Your task to perform on an android device: find which apps use the phone's location Image 0: 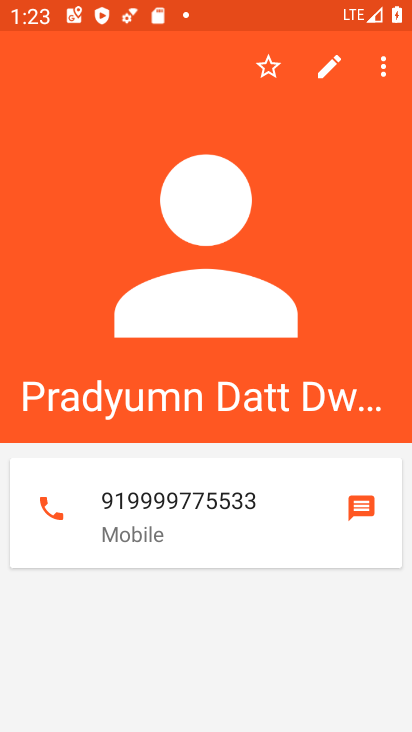
Step 0: press home button
Your task to perform on an android device: find which apps use the phone's location Image 1: 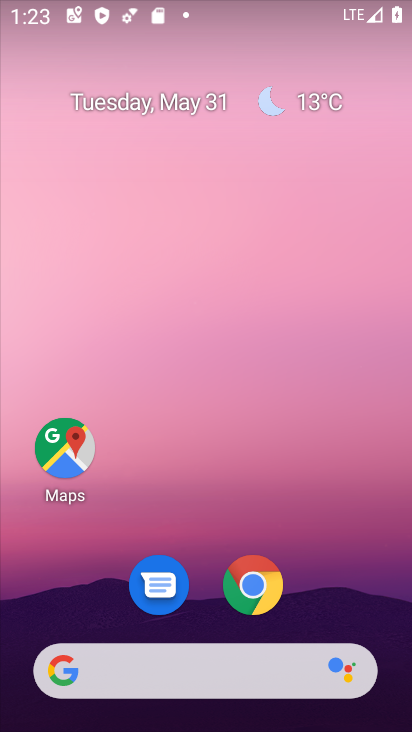
Step 1: drag from (219, 495) to (264, 16)
Your task to perform on an android device: find which apps use the phone's location Image 2: 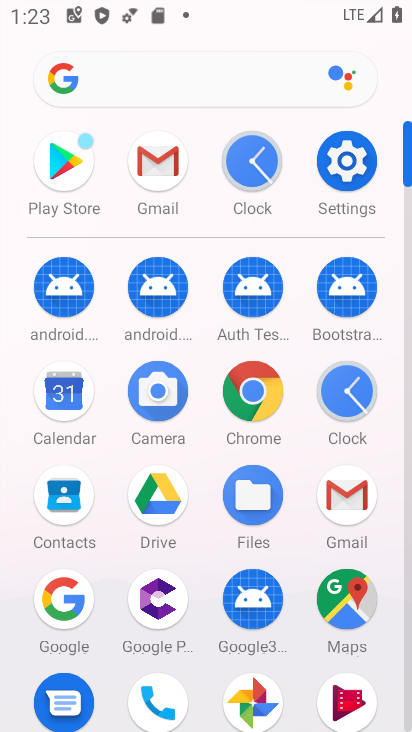
Step 2: click (340, 163)
Your task to perform on an android device: find which apps use the phone's location Image 3: 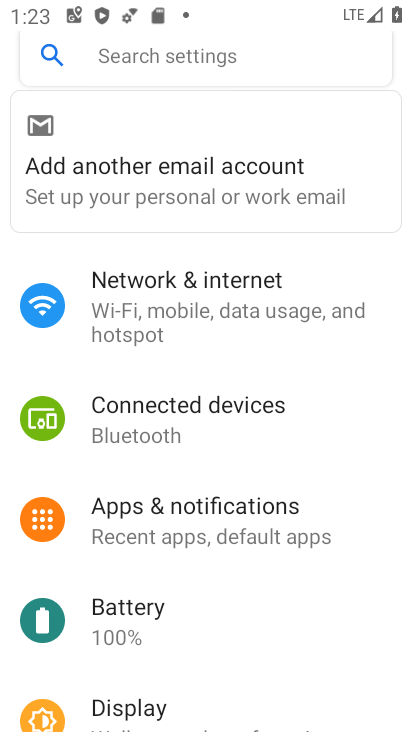
Step 3: drag from (233, 578) to (287, 119)
Your task to perform on an android device: find which apps use the phone's location Image 4: 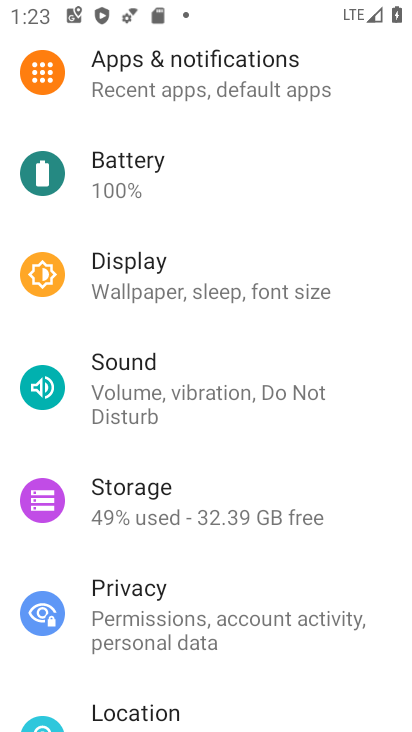
Step 4: drag from (209, 421) to (235, 153)
Your task to perform on an android device: find which apps use the phone's location Image 5: 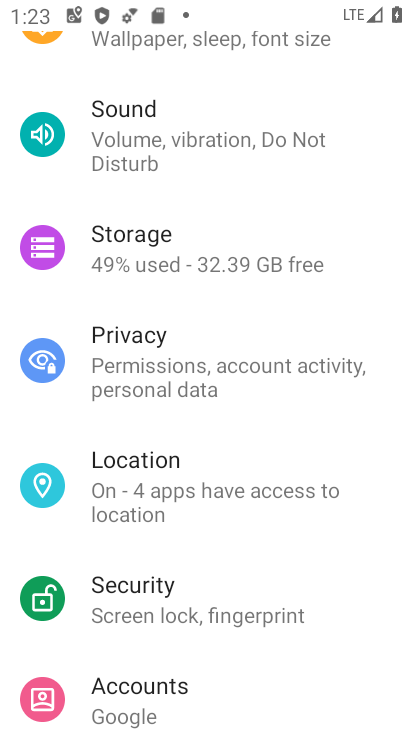
Step 5: click (169, 493)
Your task to perform on an android device: find which apps use the phone's location Image 6: 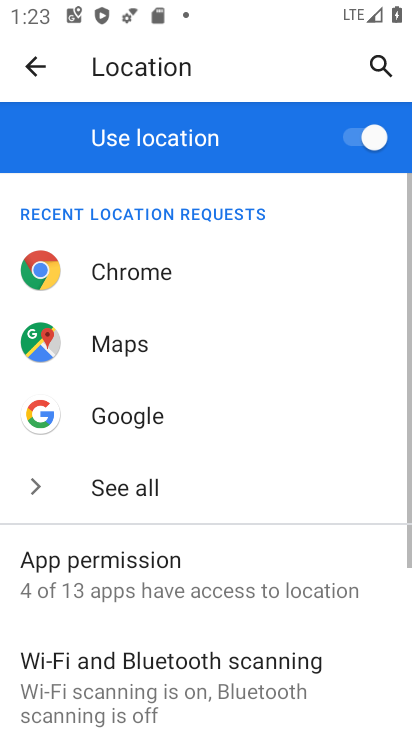
Step 6: drag from (242, 458) to (266, 239)
Your task to perform on an android device: find which apps use the phone's location Image 7: 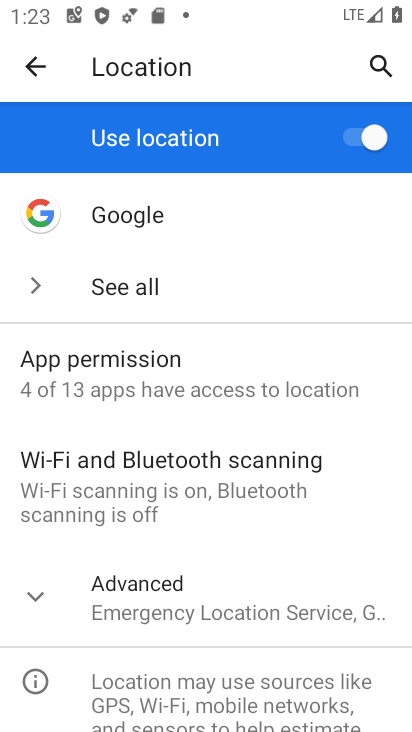
Step 7: click (193, 360)
Your task to perform on an android device: find which apps use the phone's location Image 8: 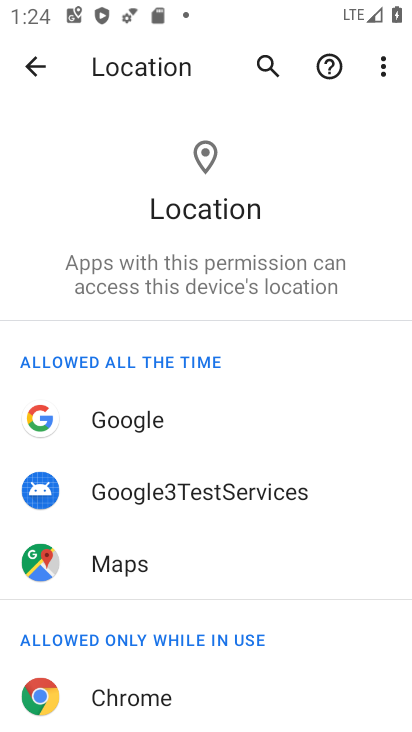
Step 8: task complete